Your task to perform on an android device: Empty the shopping cart on ebay.com. Add energizer triple a to the cart on ebay.com, then select checkout. Image 0: 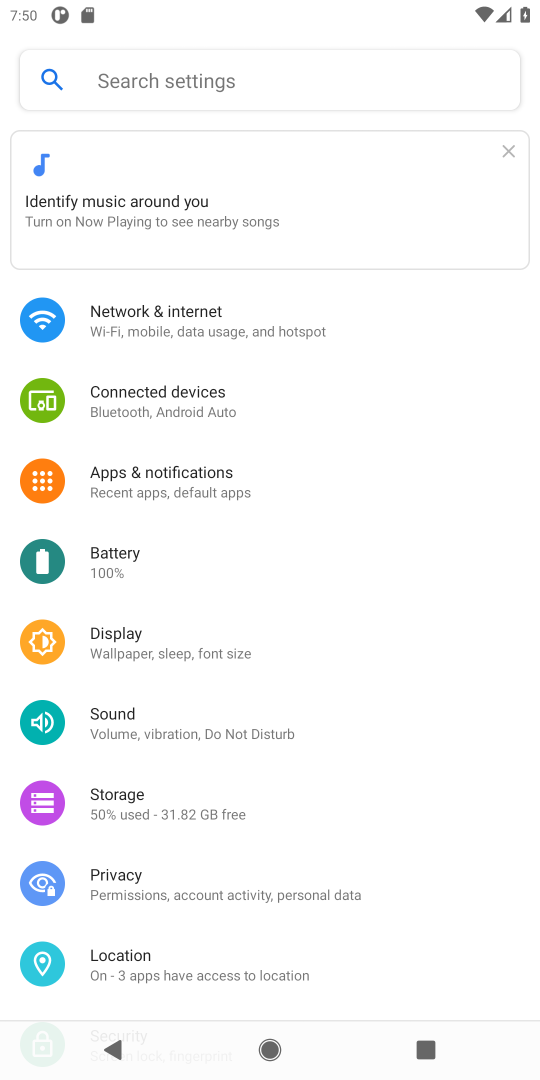
Step 0: press home button
Your task to perform on an android device: Empty the shopping cart on ebay.com. Add energizer triple a to the cart on ebay.com, then select checkout. Image 1: 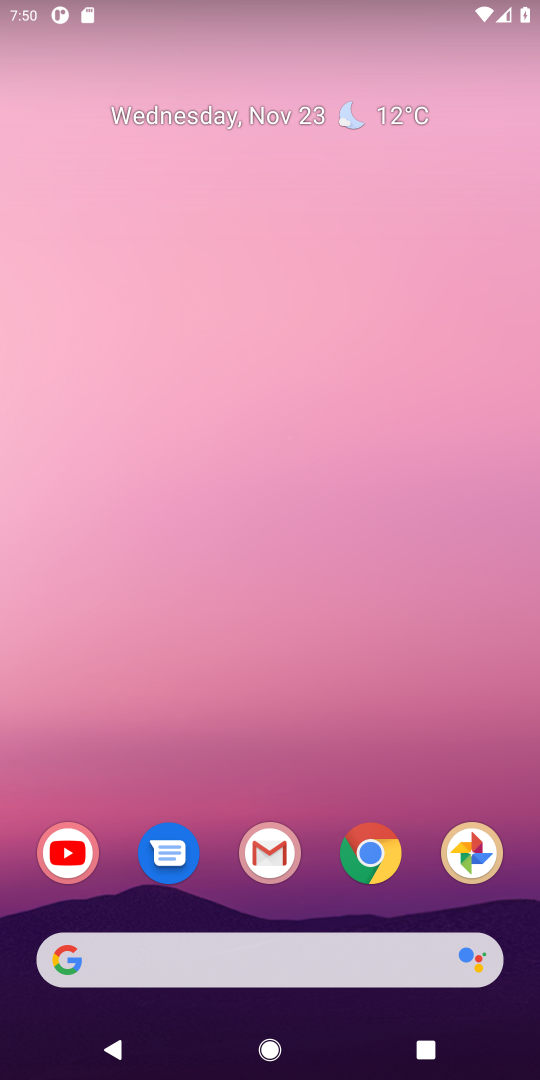
Step 1: click (373, 854)
Your task to perform on an android device: Empty the shopping cart on ebay.com. Add energizer triple a to the cart on ebay.com, then select checkout. Image 2: 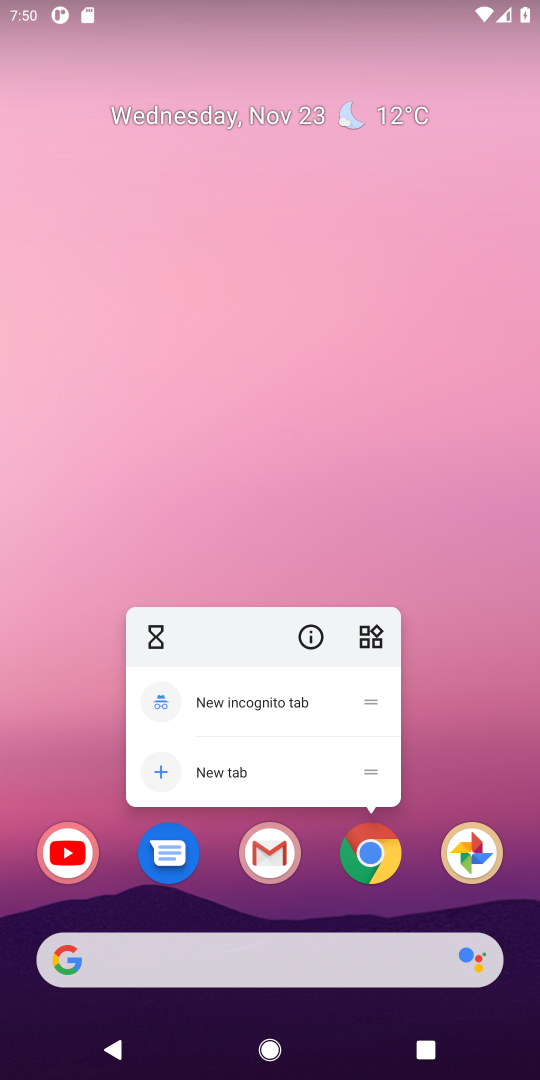
Step 2: click (373, 854)
Your task to perform on an android device: Empty the shopping cart on ebay.com. Add energizer triple a to the cart on ebay.com, then select checkout. Image 3: 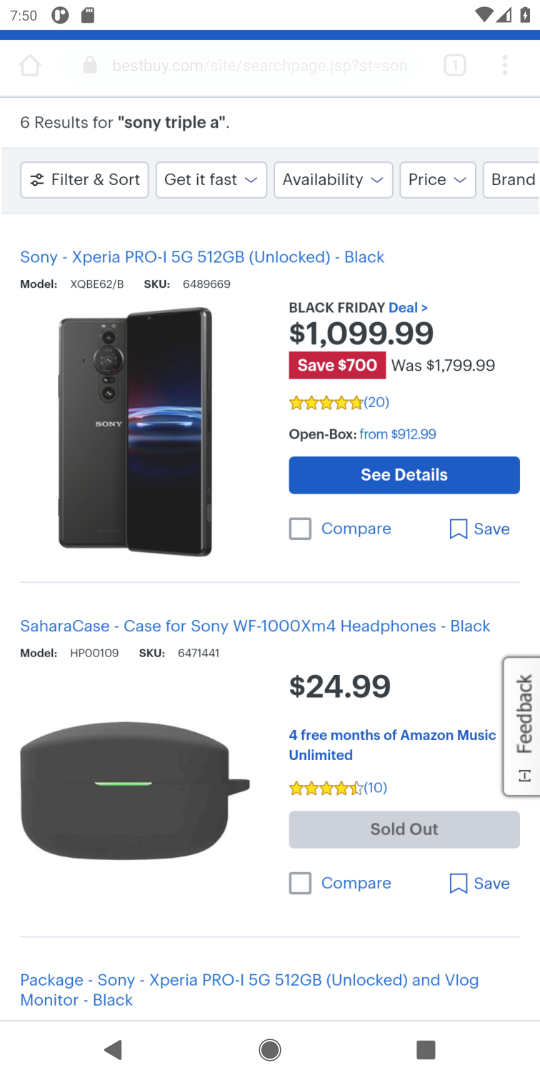
Step 3: click (373, 859)
Your task to perform on an android device: Empty the shopping cart on ebay.com. Add energizer triple a to the cart on ebay.com, then select checkout. Image 4: 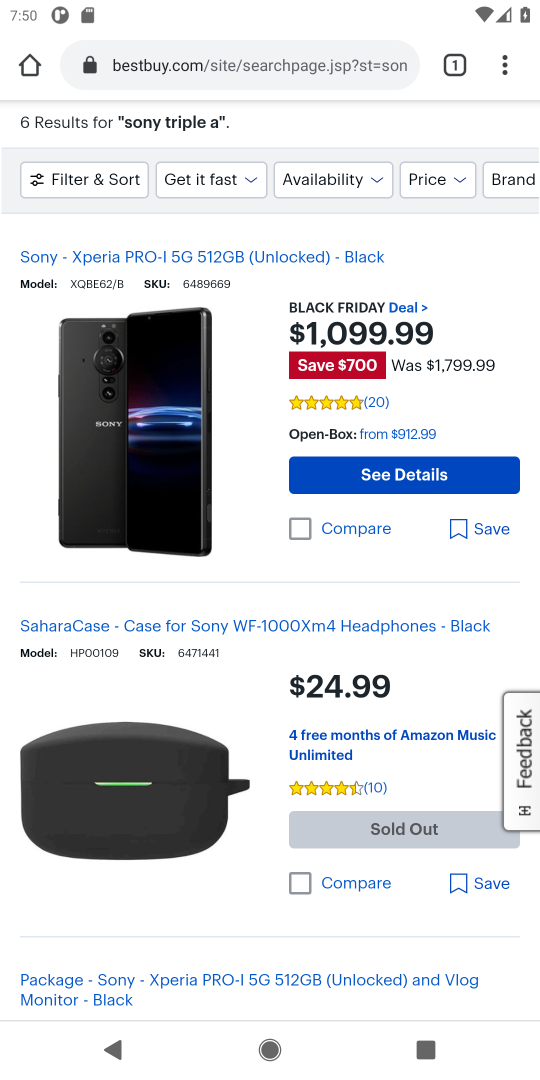
Step 4: click (228, 74)
Your task to perform on an android device: Empty the shopping cart on ebay.com. Add energizer triple a to the cart on ebay.com, then select checkout. Image 5: 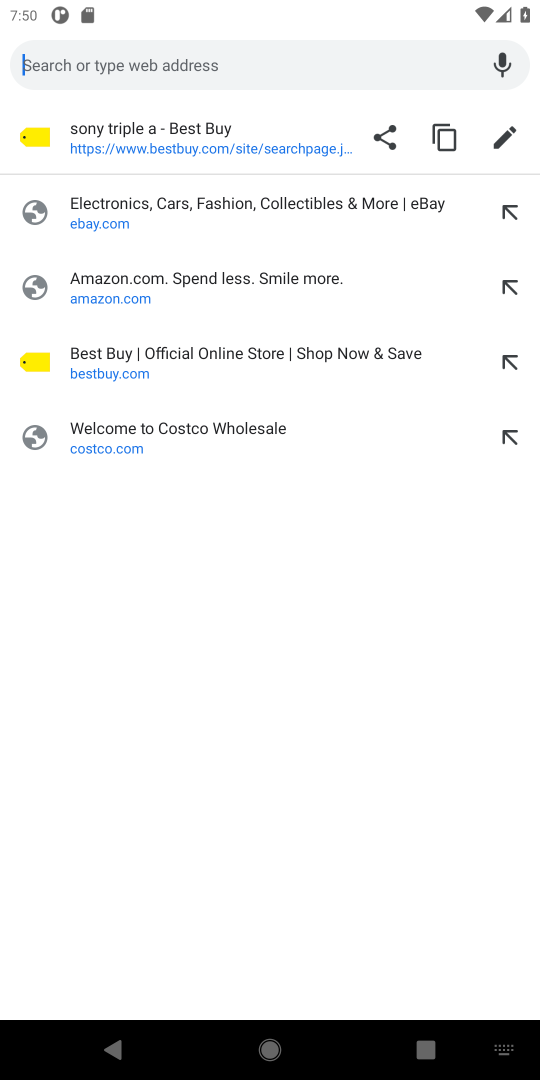
Step 5: click (84, 233)
Your task to perform on an android device: Empty the shopping cart on ebay.com. Add energizer triple a to the cart on ebay.com, then select checkout. Image 6: 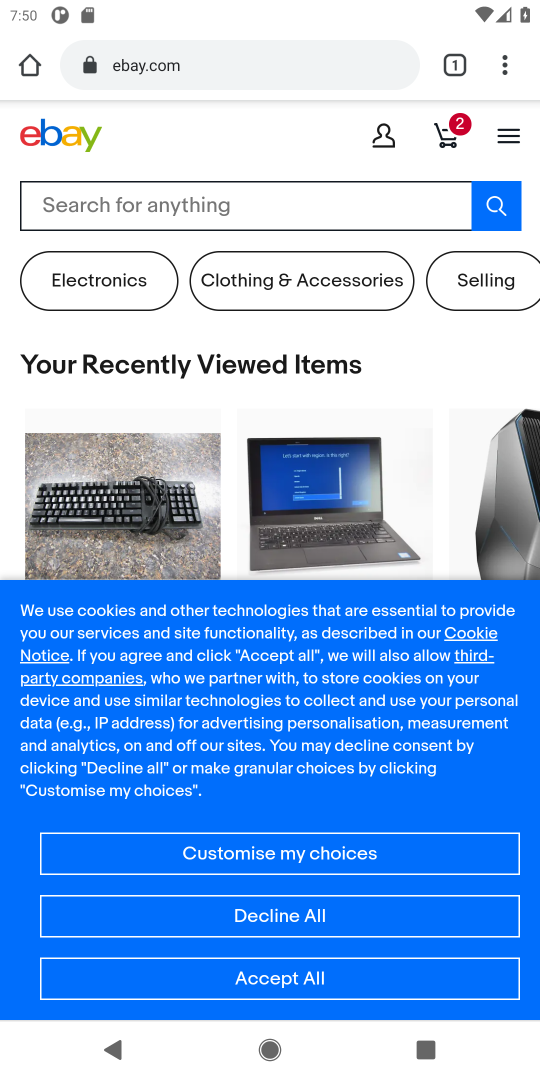
Step 6: click (452, 140)
Your task to perform on an android device: Empty the shopping cart on ebay.com. Add energizer triple a to the cart on ebay.com, then select checkout. Image 7: 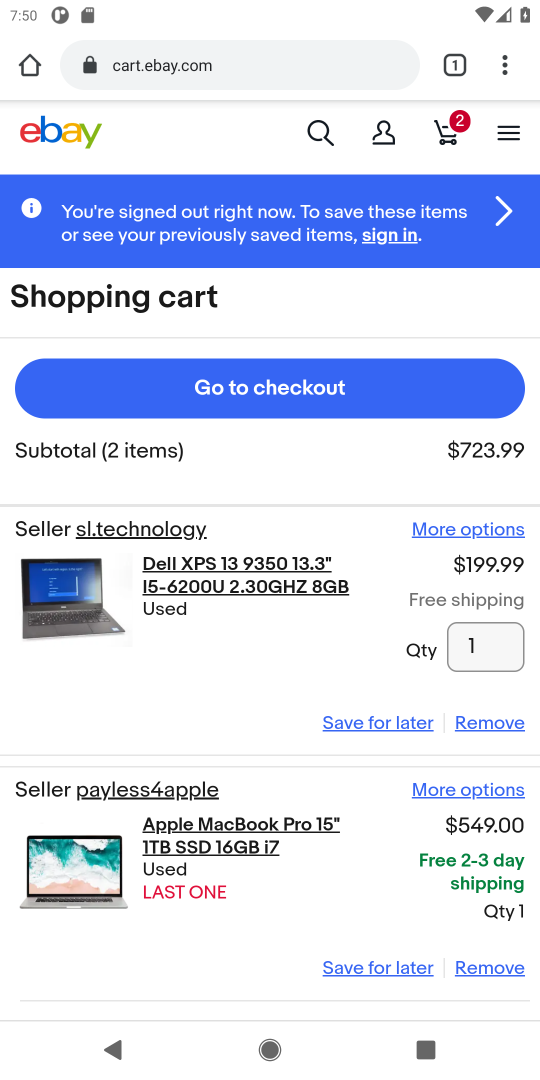
Step 7: click (472, 725)
Your task to perform on an android device: Empty the shopping cart on ebay.com. Add energizer triple a to the cart on ebay.com, then select checkout. Image 8: 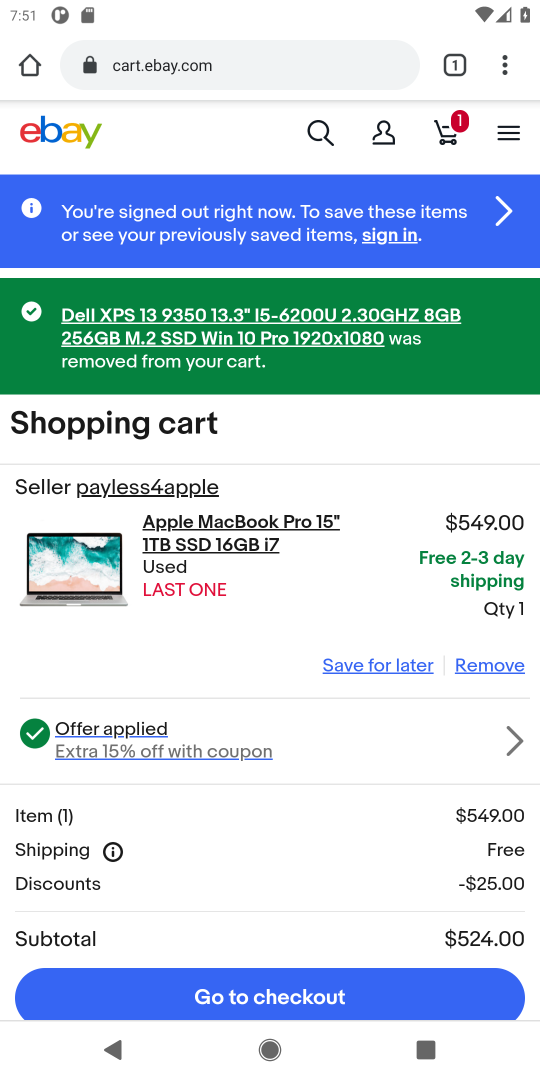
Step 8: click (483, 670)
Your task to perform on an android device: Empty the shopping cart on ebay.com. Add energizer triple a to the cart on ebay.com, then select checkout. Image 9: 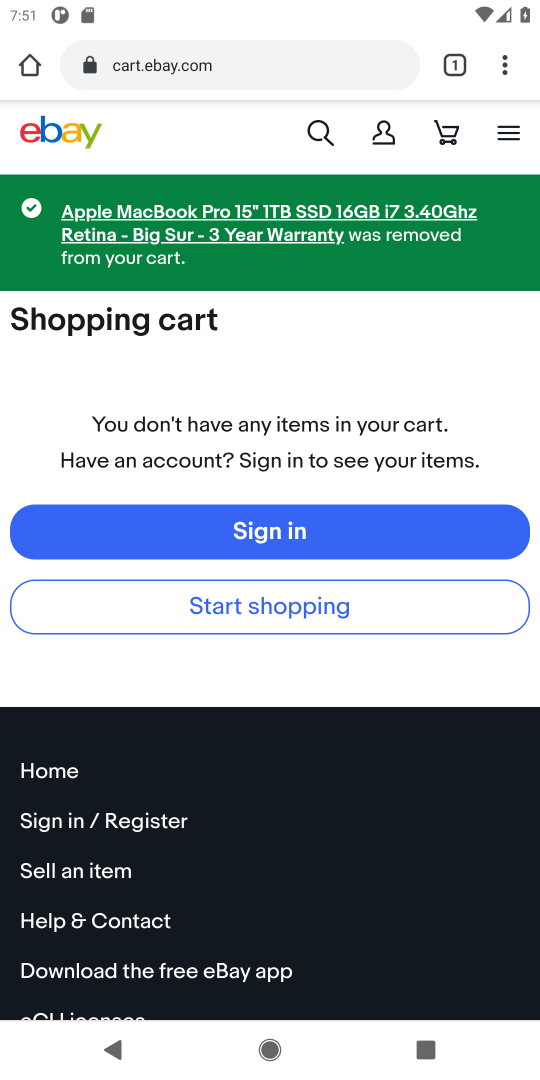
Step 9: click (314, 131)
Your task to perform on an android device: Empty the shopping cart on ebay.com. Add energizer triple a to the cart on ebay.com, then select checkout. Image 10: 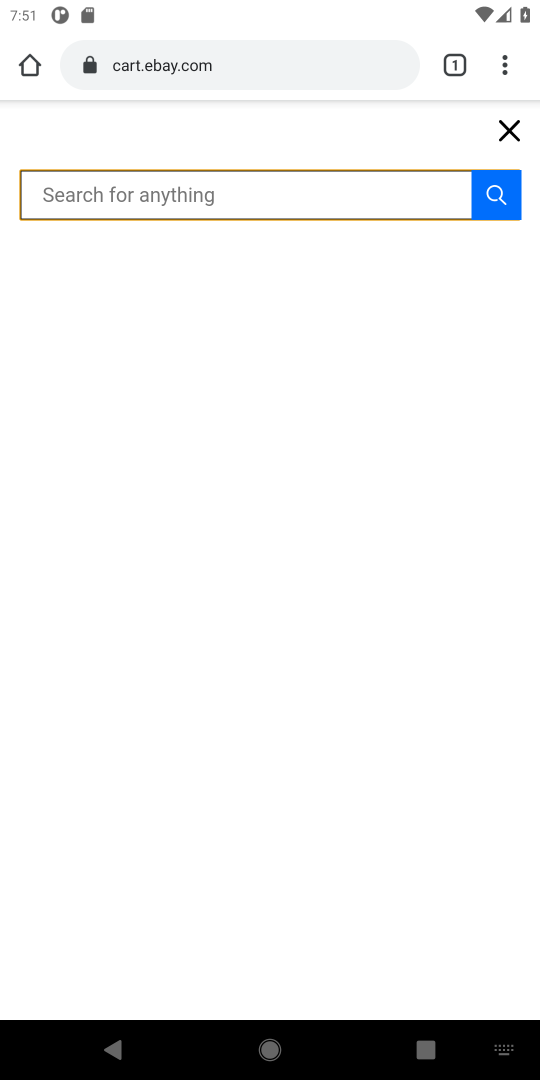
Step 10: type "energizer triple a"
Your task to perform on an android device: Empty the shopping cart on ebay.com. Add energizer triple a to the cart on ebay.com, then select checkout. Image 11: 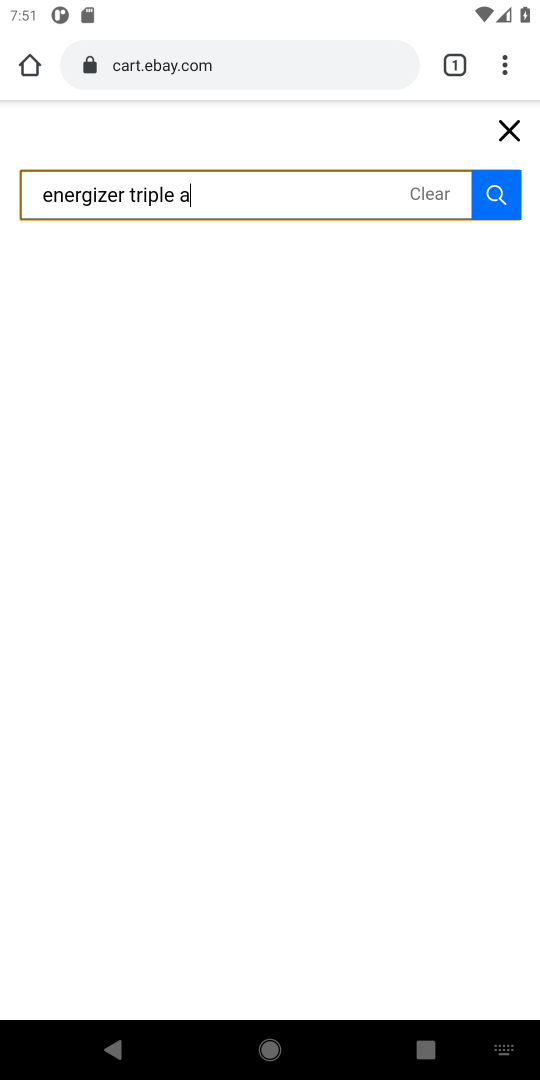
Step 11: click (495, 196)
Your task to perform on an android device: Empty the shopping cart on ebay.com. Add energizer triple a to the cart on ebay.com, then select checkout. Image 12: 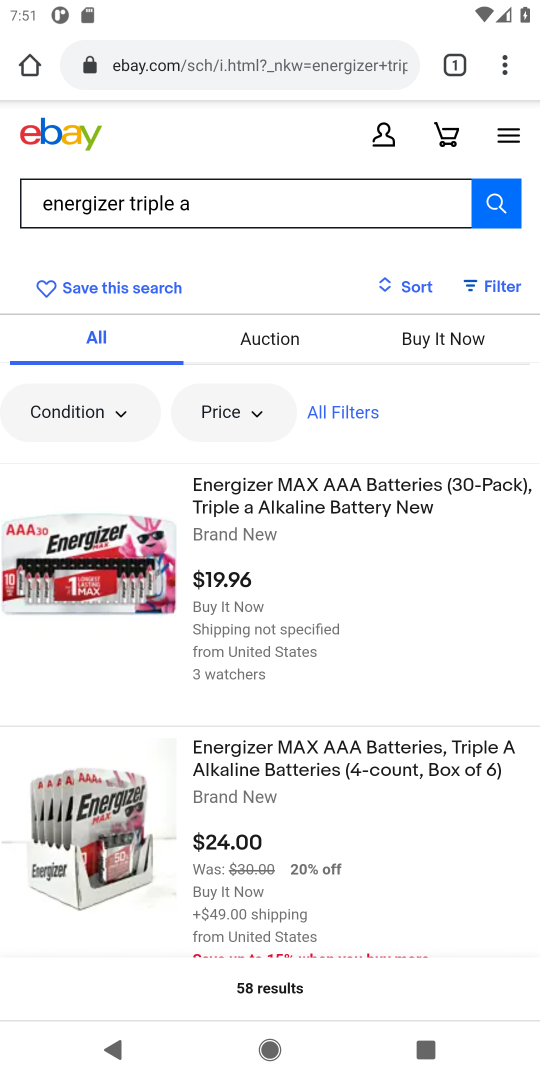
Step 12: click (78, 578)
Your task to perform on an android device: Empty the shopping cart on ebay.com. Add energizer triple a to the cart on ebay.com, then select checkout. Image 13: 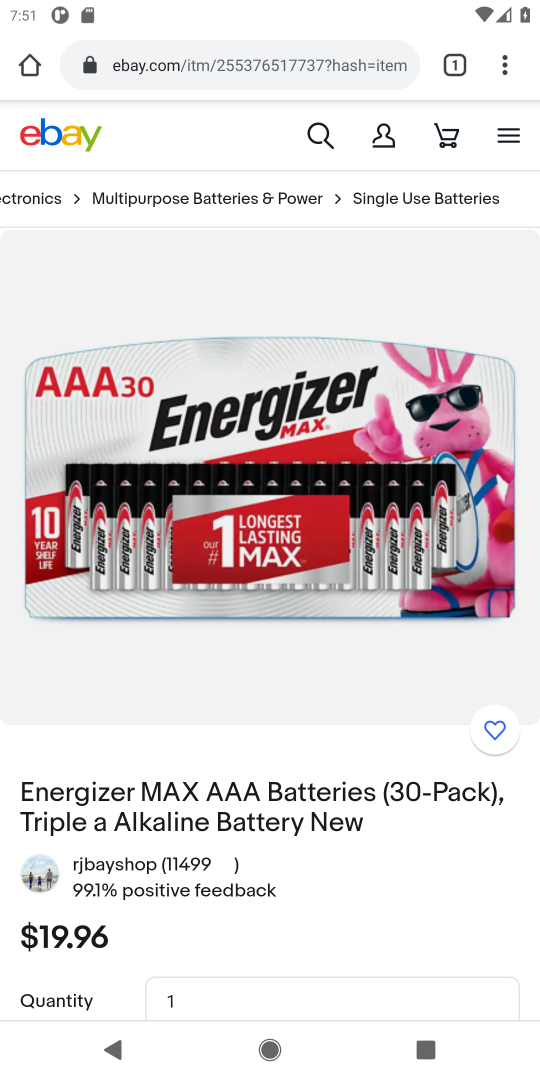
Step 13: drag from (260, 746) to (199, 230)
Your task to perform on an android device: Empty the shopping cart on ebay.com. Add energizer triple a to the cart on ebay.com, then select checkout. Image 14: 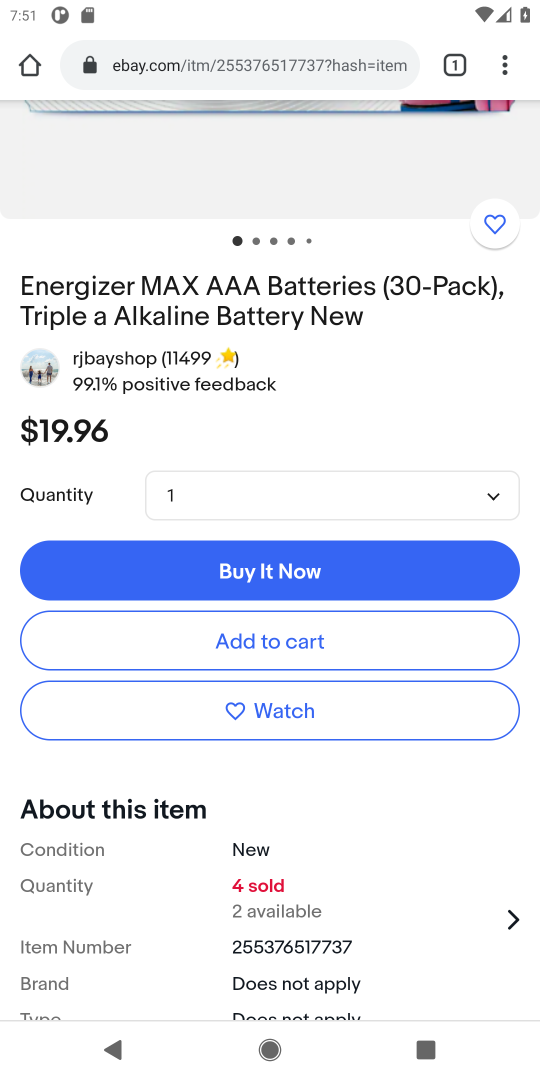
Step 14: click (258, 643)
Your task to perform on an android device: Empty the shopping cart on ebay.com. Add energizer triple a to the cart on ebay.com, then select checkout. Image 15: 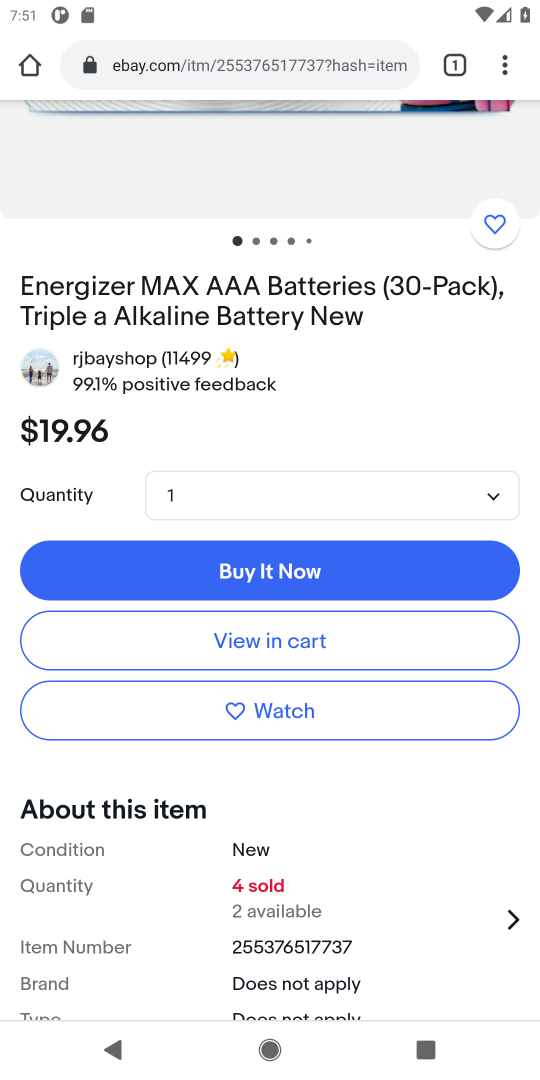
Step 15: click (258, 643)
Your task to perform on an android device: Empty the shopping cart on ebay.com. Add energizer triple a to the cart on ebay.com, then select checkout. Image 16: 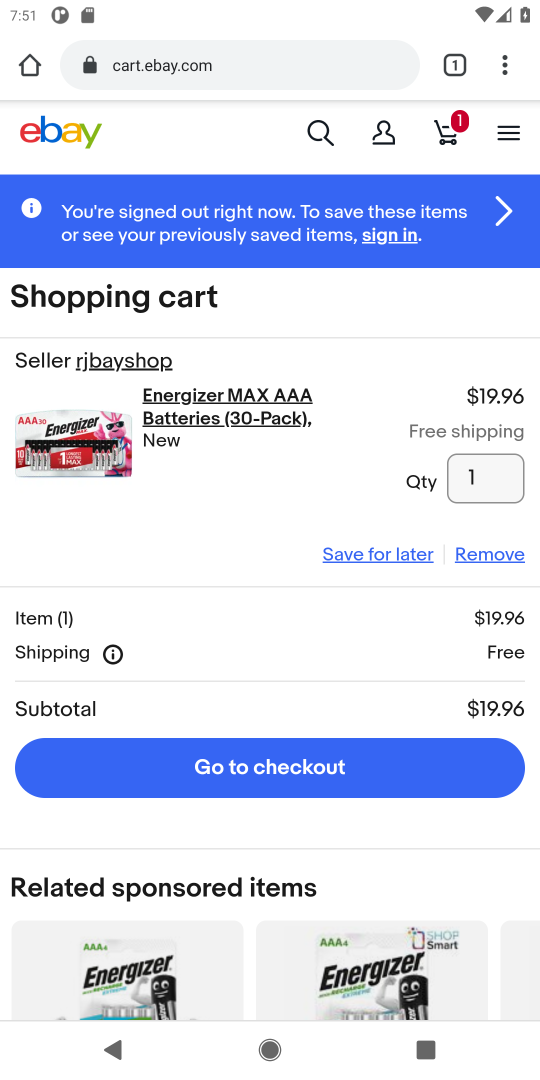
Step 16: click (262, 768)
Your task to perform on an android device: Empty the shopping cart on ebay.com. Add energizer triple a to the cart on ebay.com, then select checkout. Image 17: 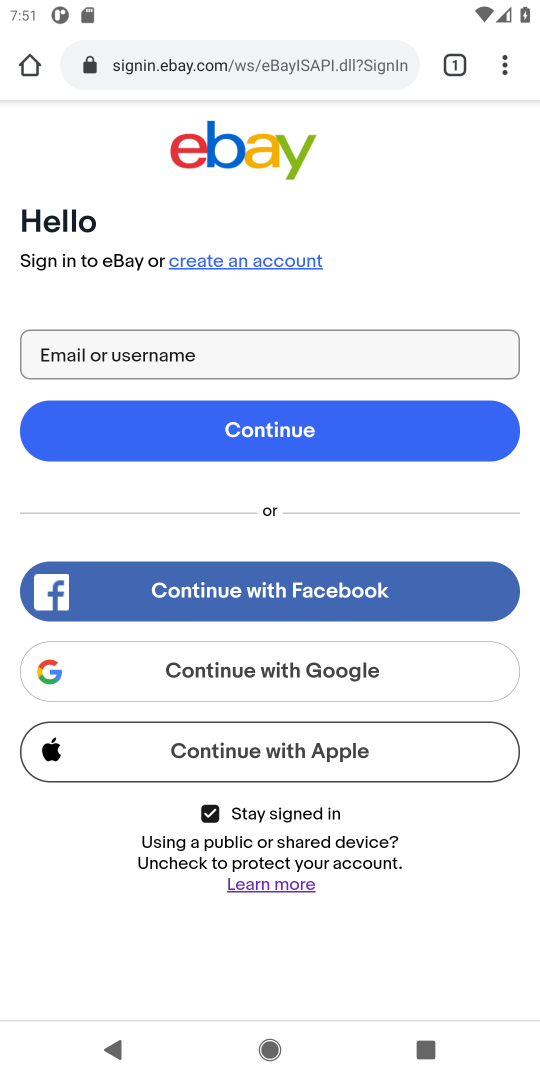
Step 17: task complete